Your task to perform on an android device: Open the phone app and click the voicemail tab. Image 0: 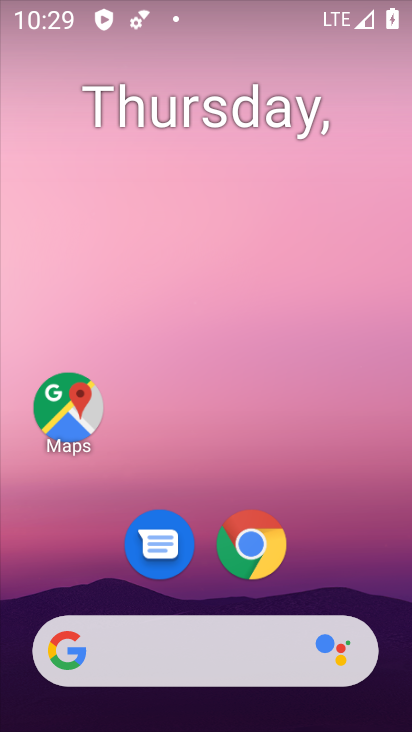
Step 0: drag from (333, 596) to (136, 84)
Your task to perform on an android device: Open the phone app and click the voicemail tab. Image 1: 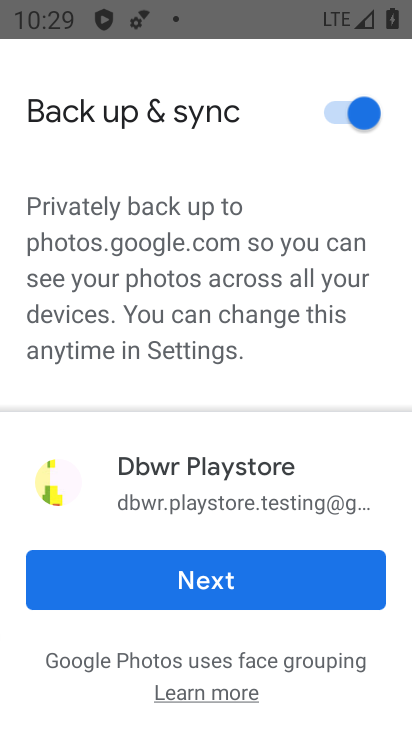
Step 1: press home button
Your task to perform on an android device: Open the phone app and click the voicemail tab. Image 2: 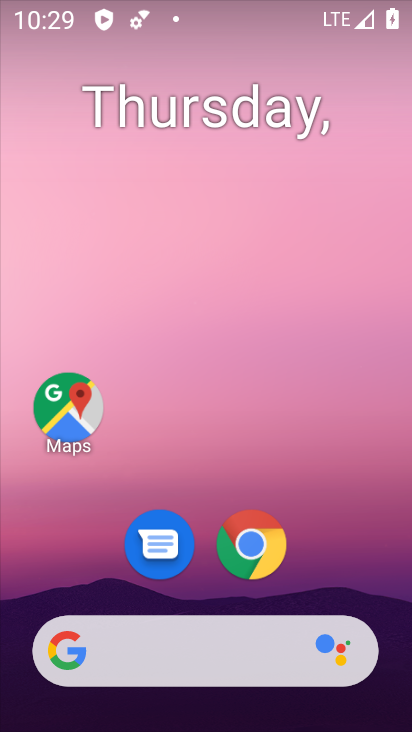
Step 2: drag from (303, 561) to (185, 106)
Your task to perform on an android device: Open the phone app and click the voicemail tab. Image 3: 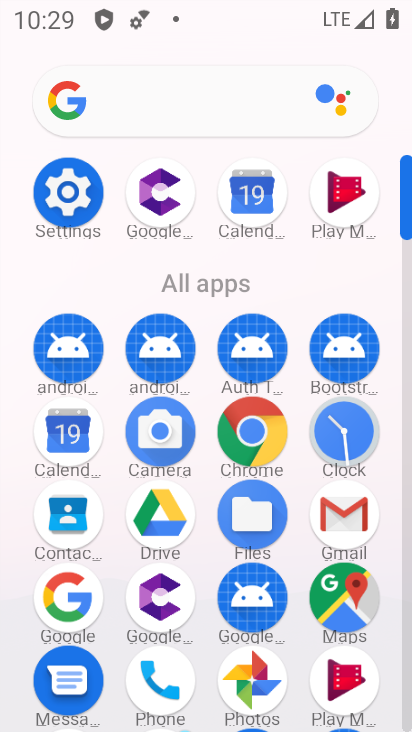
Step 3: click (148, 677)
Your task to perform on an android device: Open the phone app and click the voicemail tab. Image 4: 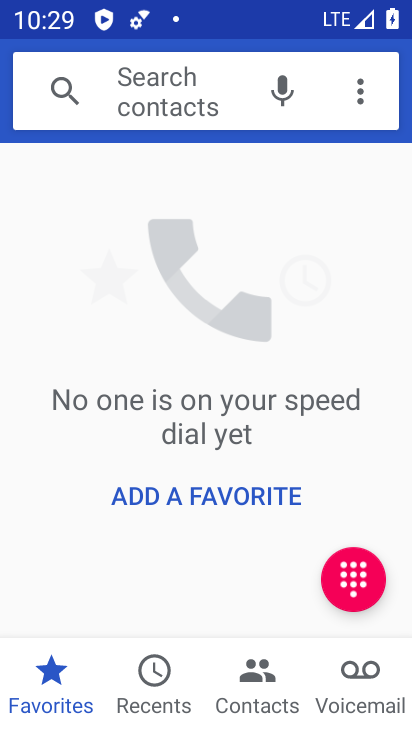
Step 4: click (336, 672)
Your task to perform on an android device: Open the phone app and click the voicemail tab. Image 5: 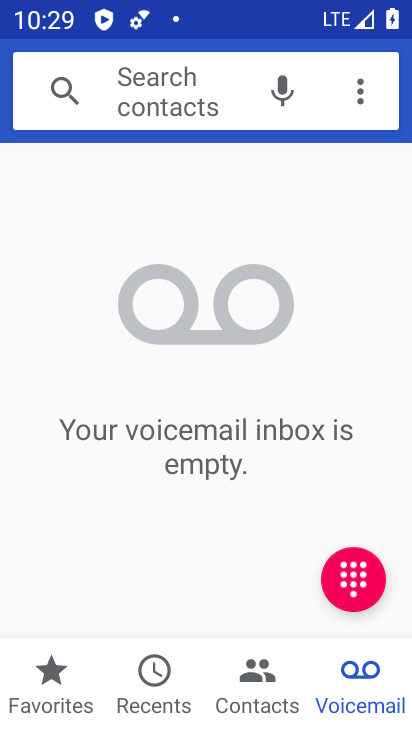
Step 5: task complete